Your task to perform on an android device: Go to privacy settings Image 0: 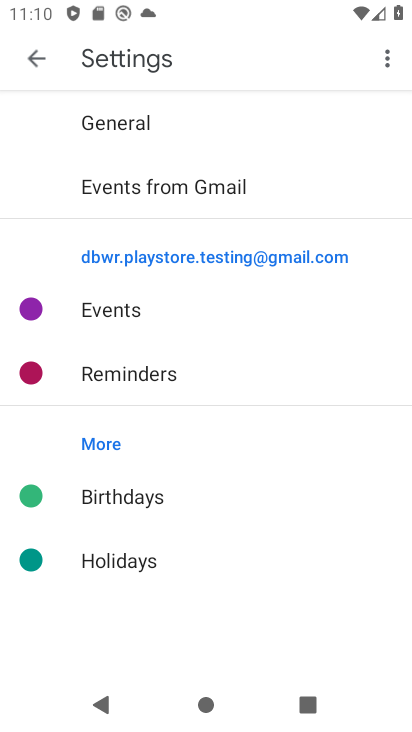
Step 0: press home button
Your task to perform on an android device: Go to privacy settings Image 1: 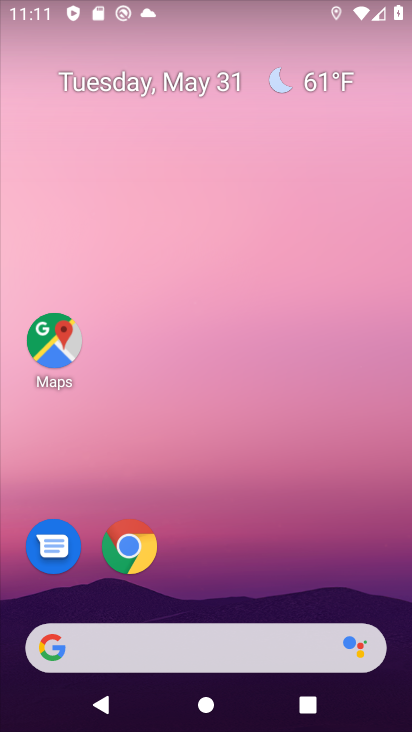
Step 1: drag from (207, 600) to (193, 57)
Your task to perform on an android device: Go to privacy settings Image 2: 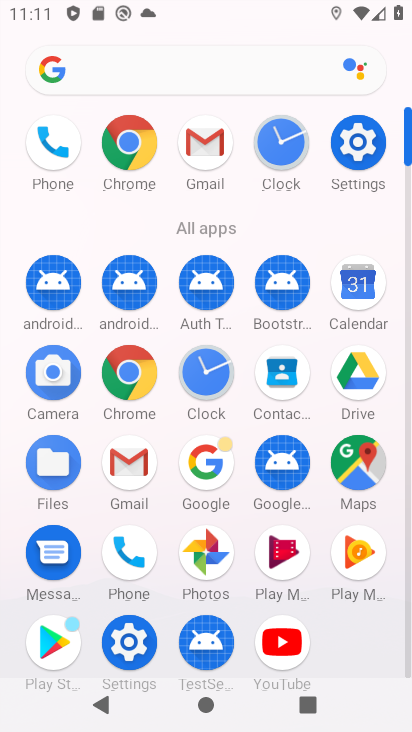
Step 2: click (125, 650)
Your task to perform on an android device: Go to privacy settings Image 3: 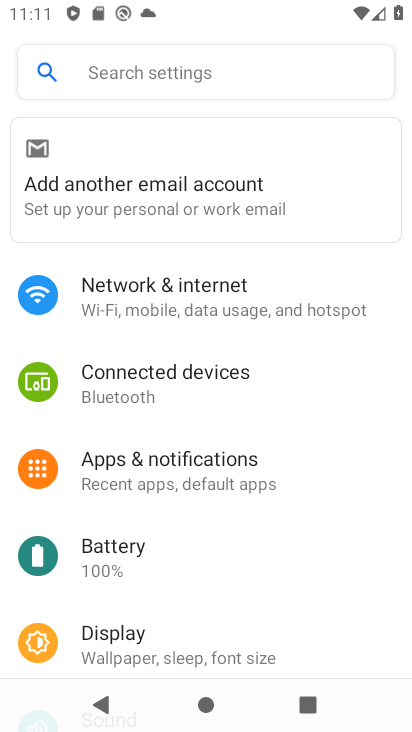
Step 3: drag from (193, 634) to (184, 141)
Your task to perform on an android device: Go to privacy settings Image 4: 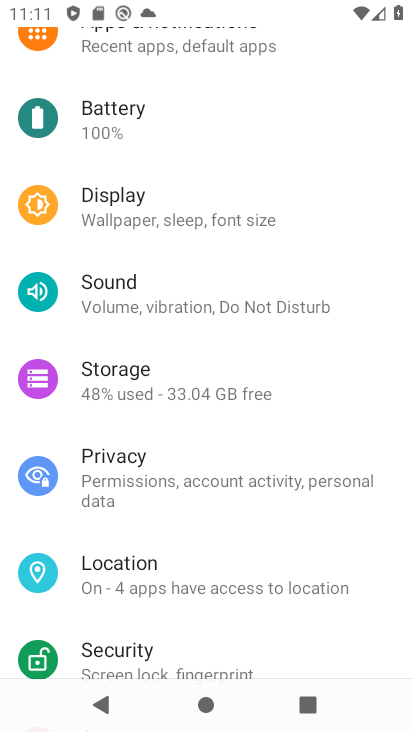
Step 4: click (144, 459)
Your task to perform on an android device: Go to privacy settings Image 5: 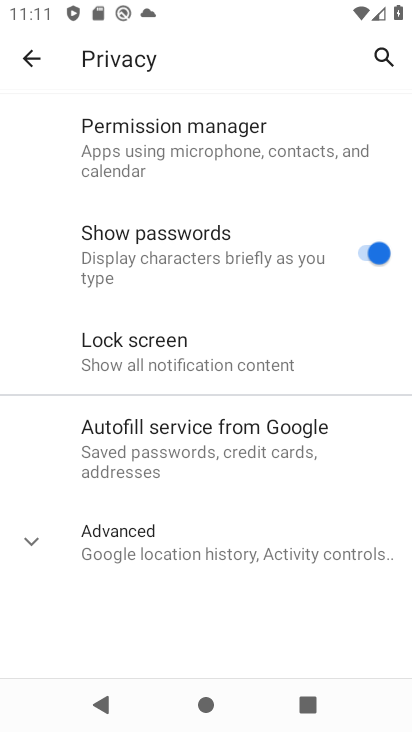
Step 5: click (150, 539)
Your task to perform on an android device: Go to privacy settings Image 6: 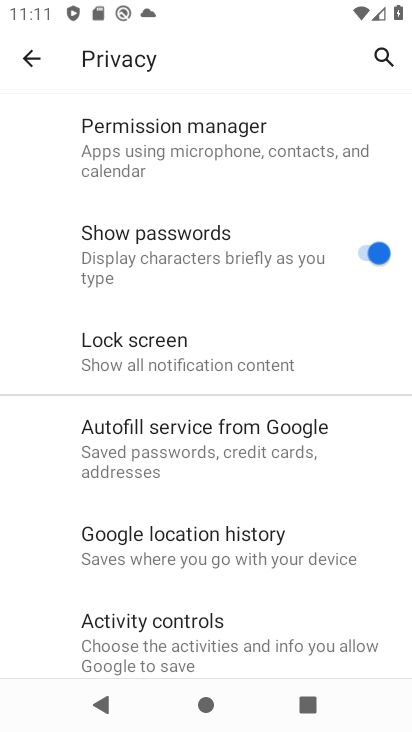
Step 6: task complete